Your task to perform on an android device: turn on airplane mode Image 0: 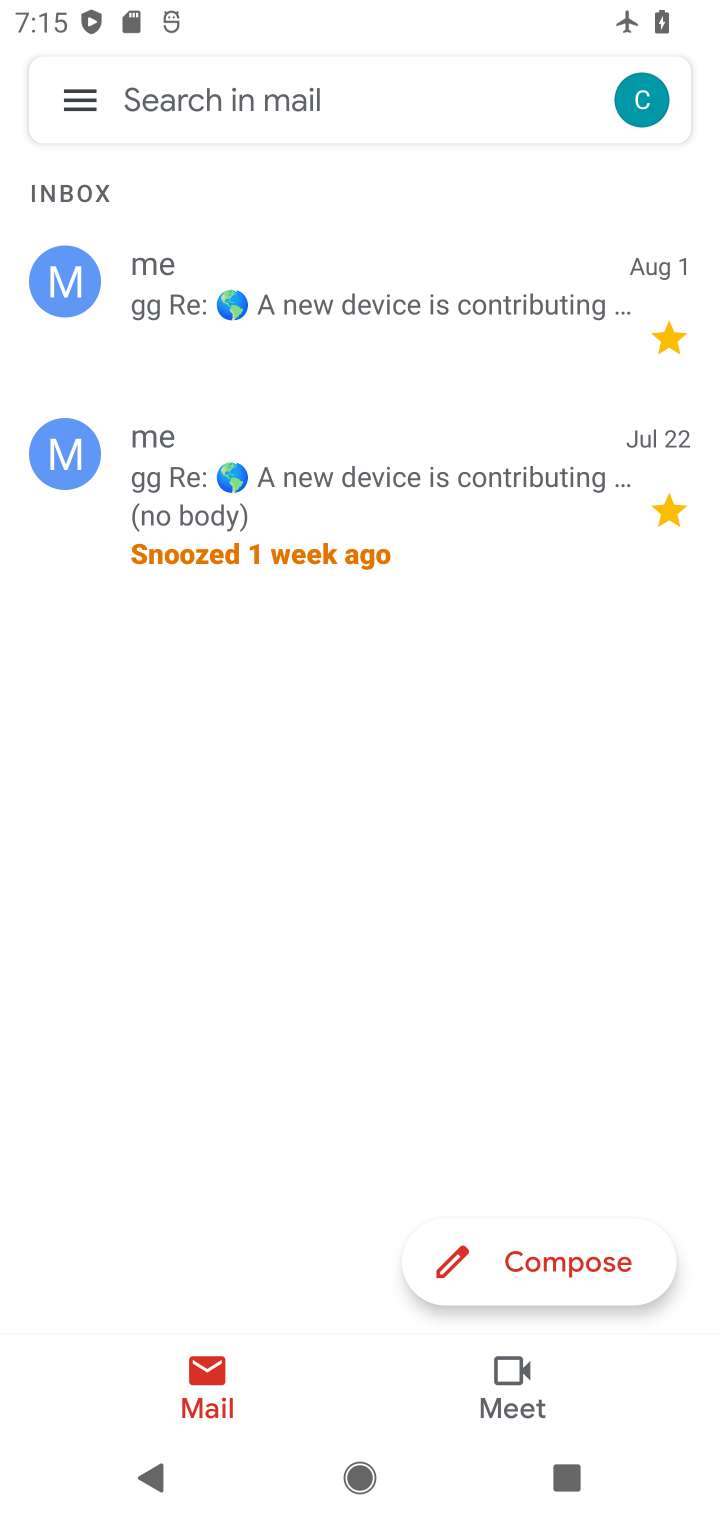
Step 0: press home button
Your task to perform on an android device: turn on airplane mode Image 1: 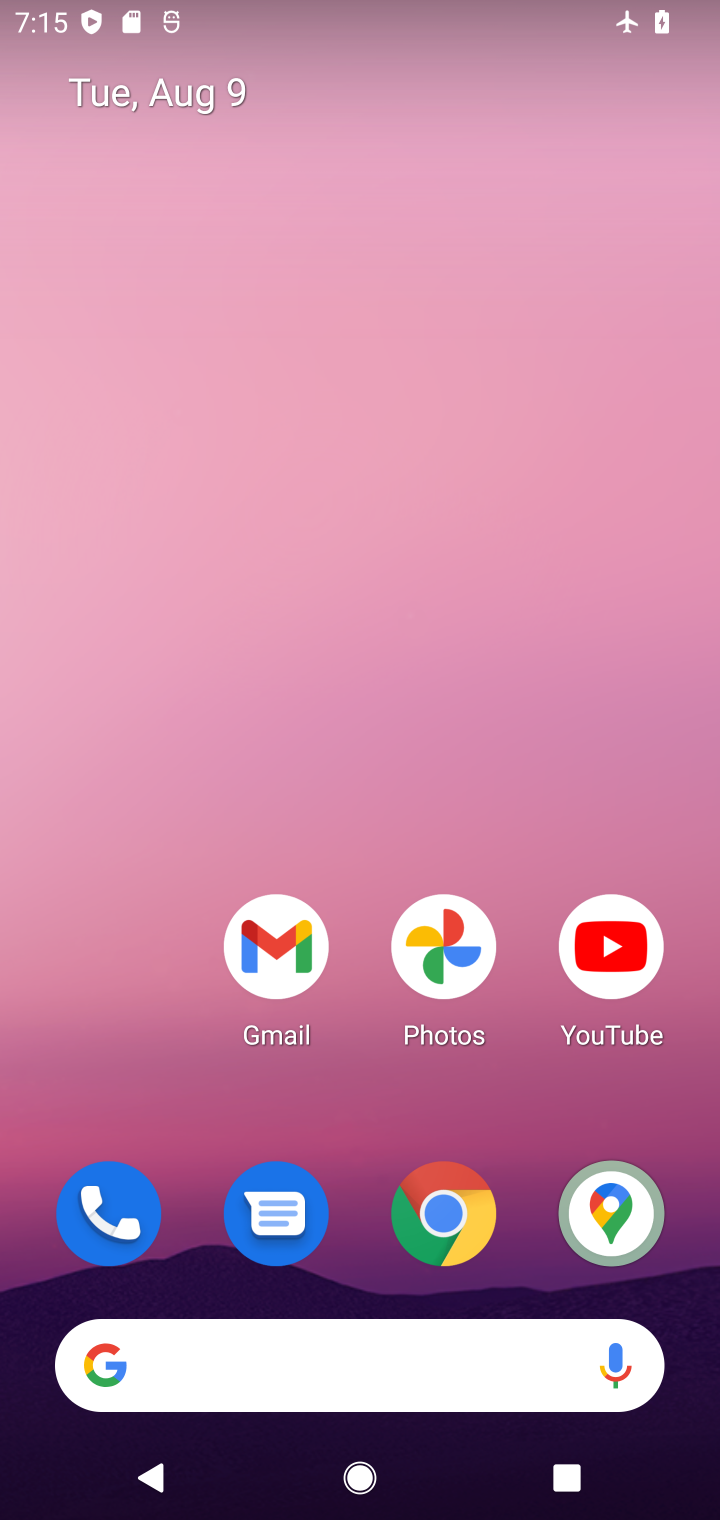
Step 1: drag from (346, 1277) to (444, 12)
Your task to perform on an android device: turn on airplane mode Image 2: 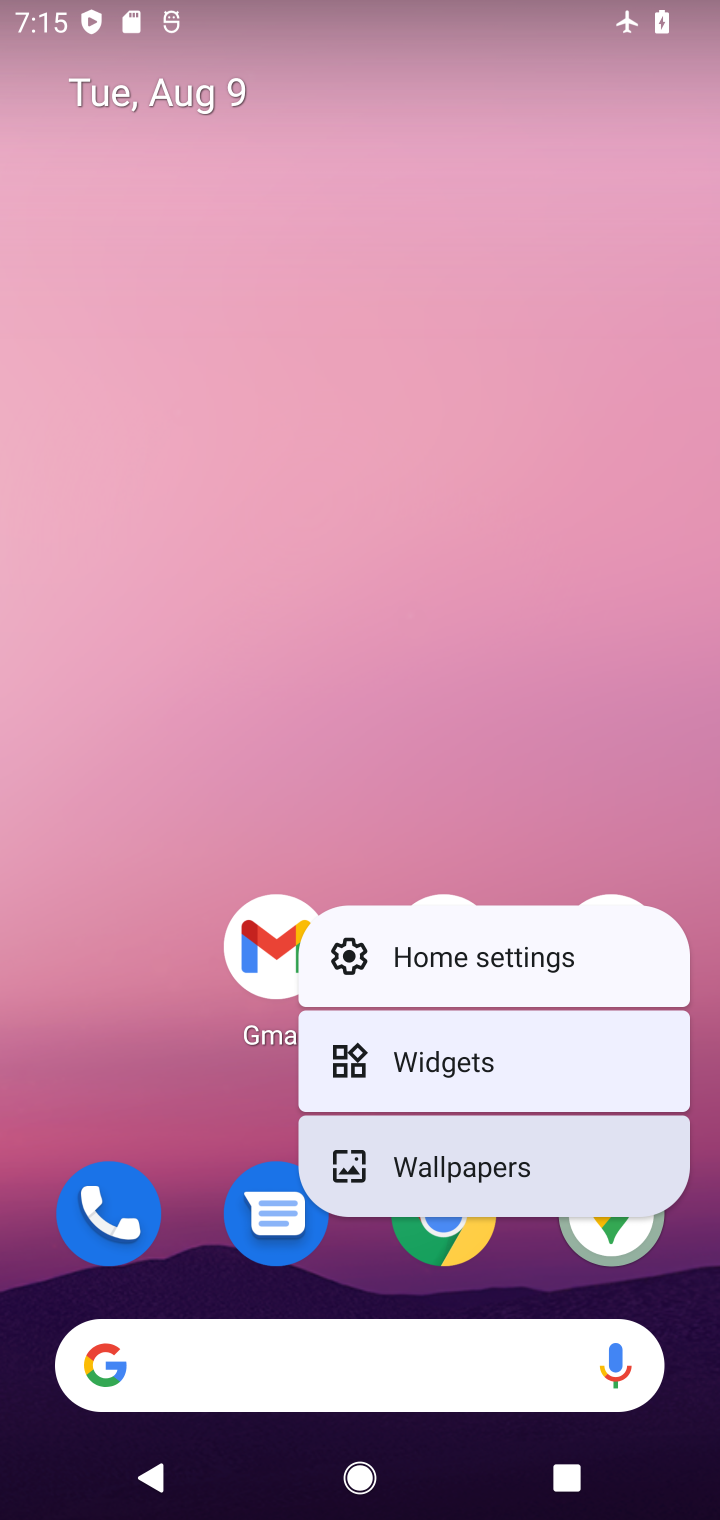
Step 2: click (311, 745)
Your task to perform on an android device: turn on airplane mode Image 3: 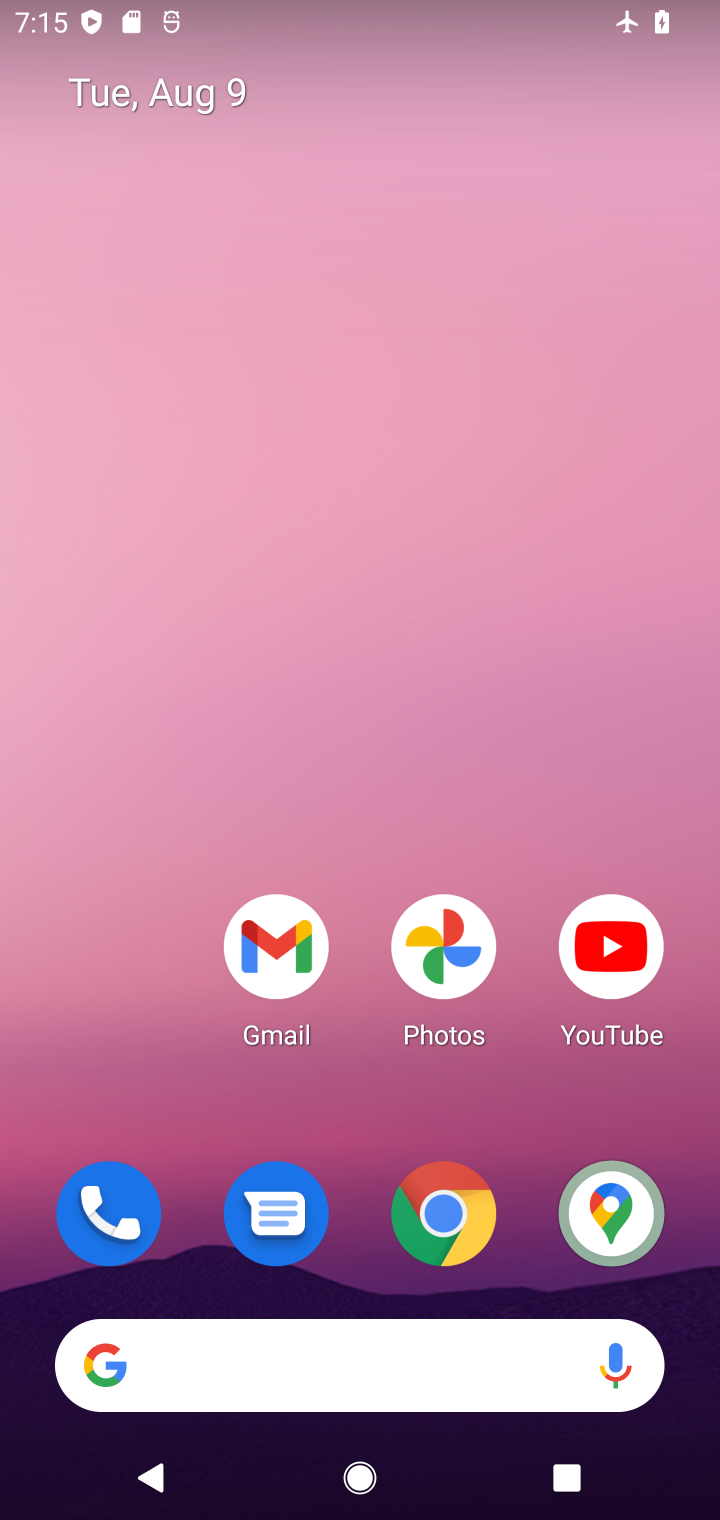
Step 3: drag from (370, 1288) to (245, 68)
Your task to perform on an android device: turn on airplane mode Image 4: 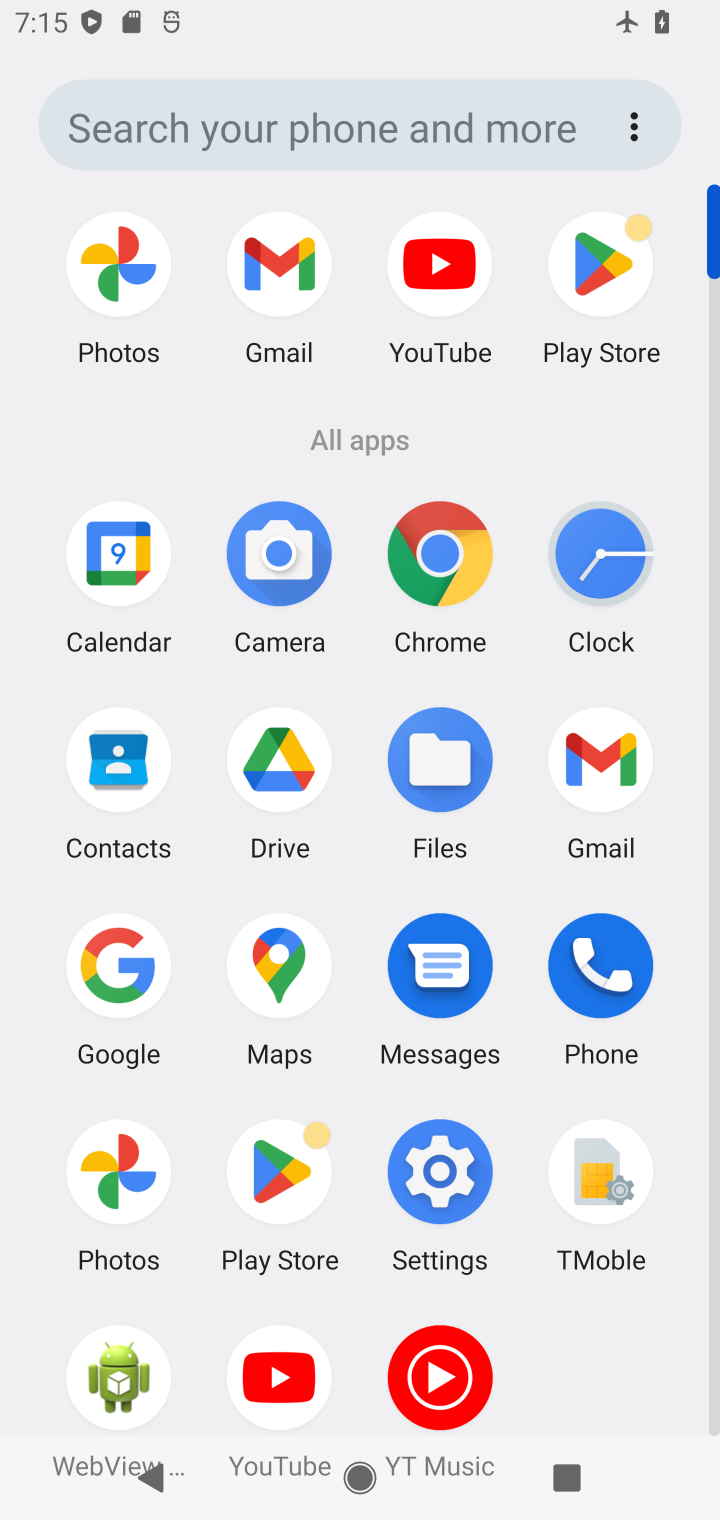
Step 4: click (427, 1138)
Your task to perform on an android device: turn on airplane mode Image 5: 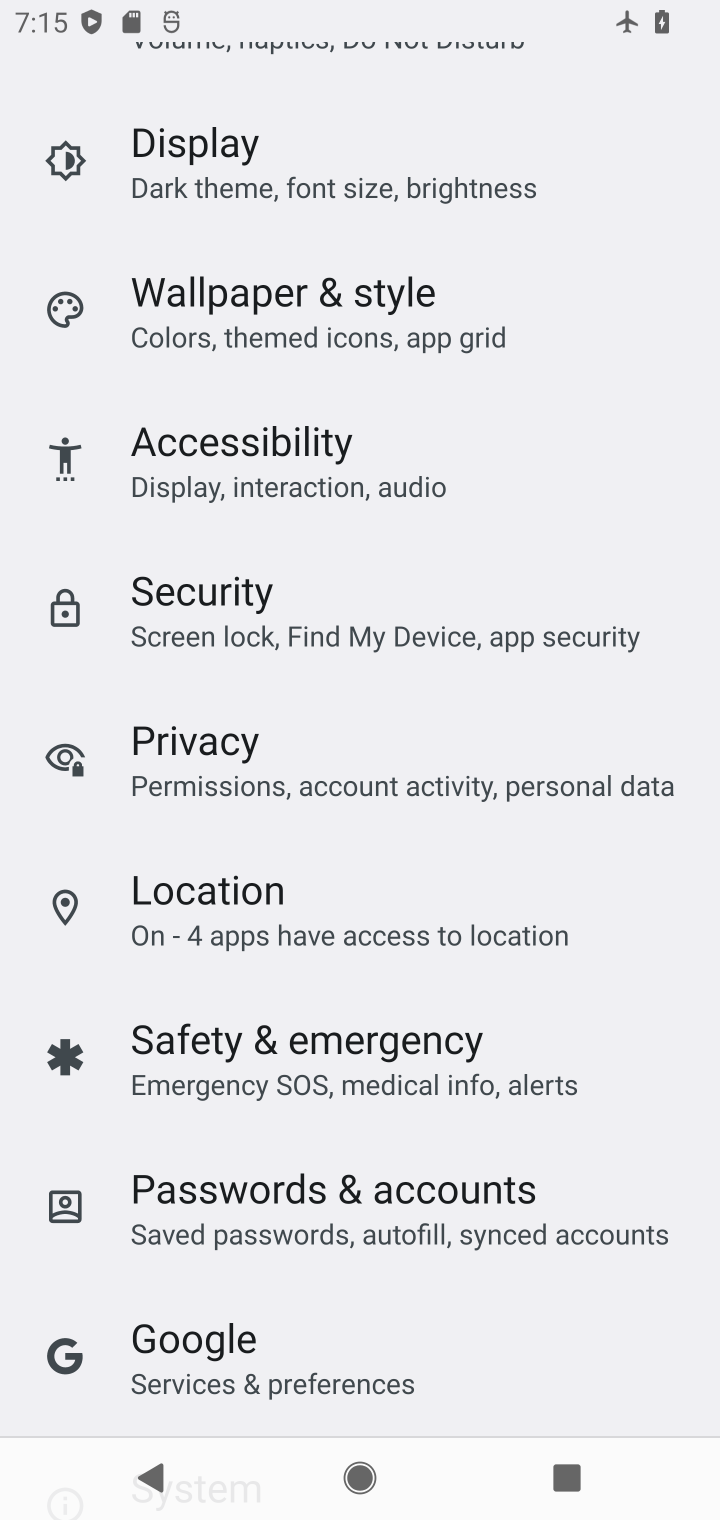
Step 5: drag from (452, 379) to (383, 1349)
Your task to perform on an android device: turn on airplane mode Image 6: 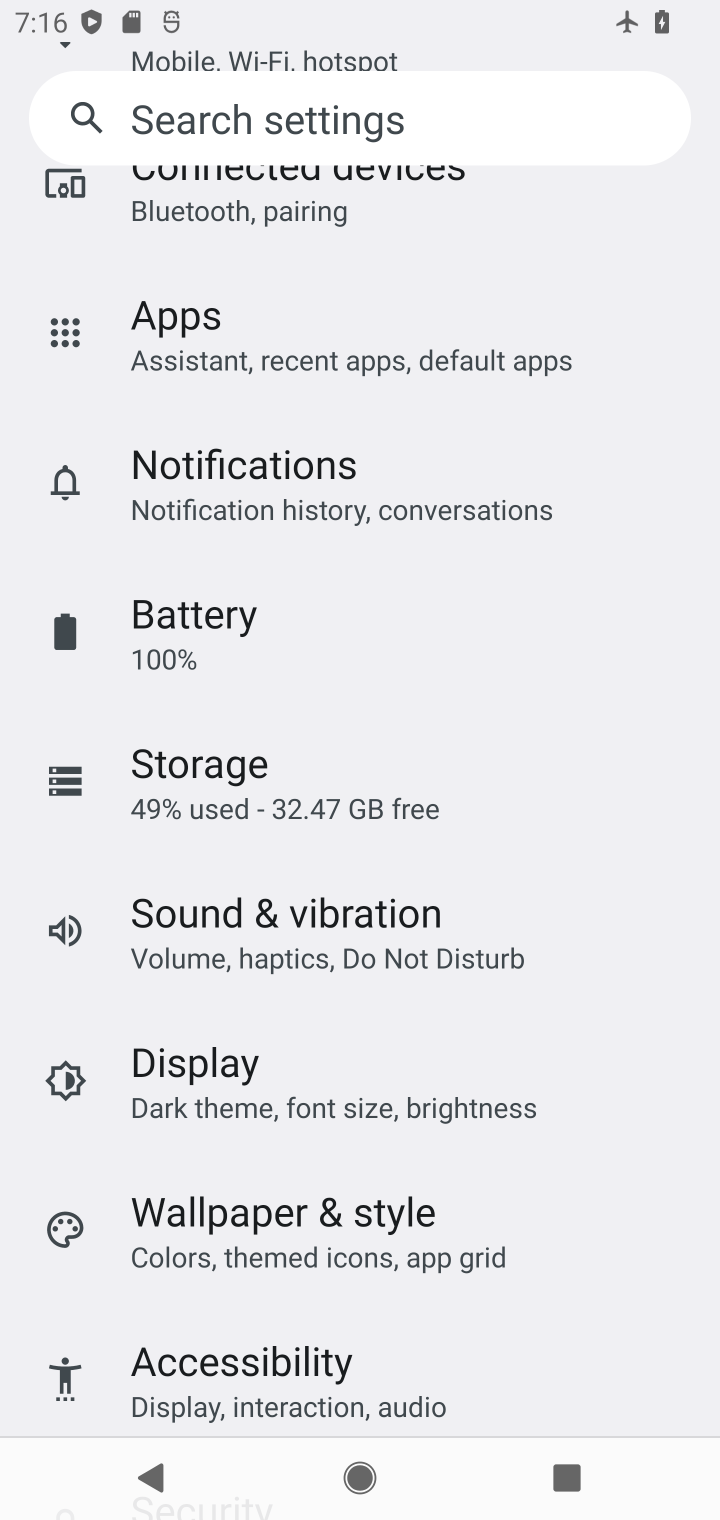
Step 6: drag from (317, 275) to (204, 1148)
Your task to perform on an android device: turn on airplane mode Image 7: 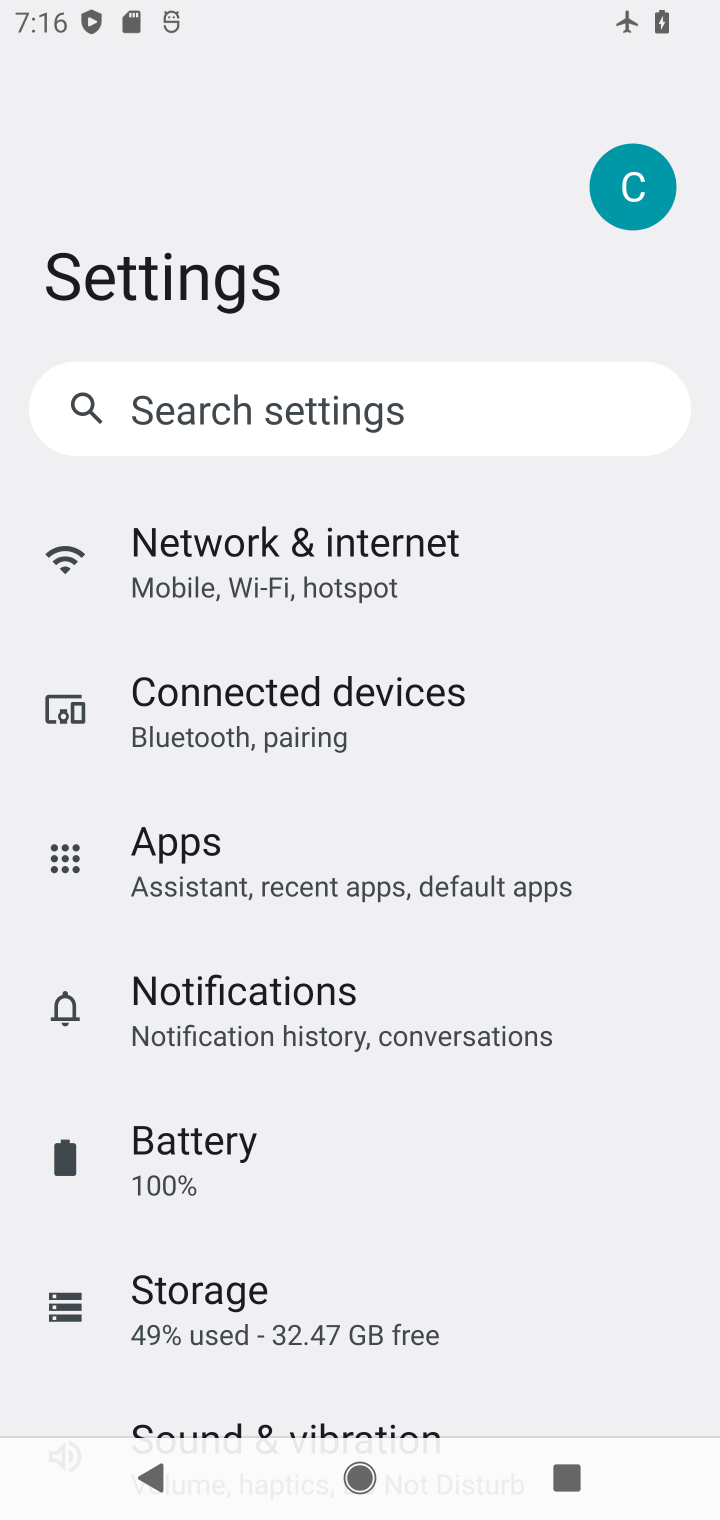
Step 7: click (195, 564)
Your task to perform on an android device: turn on airplane mode Image 8: 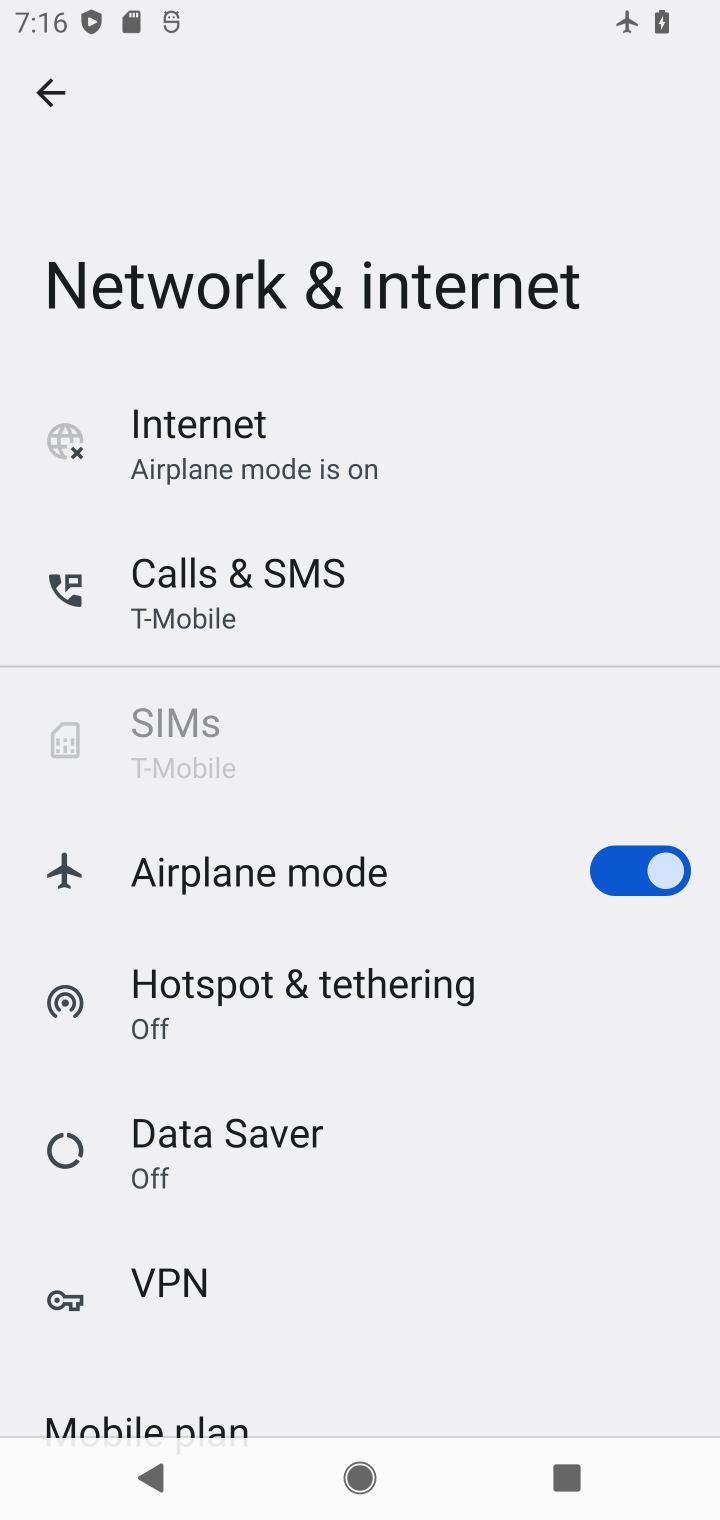
Step 8: task complete